Your task to perform on an android device: uninstall "Life360: Find Family & Friends" Image 0: 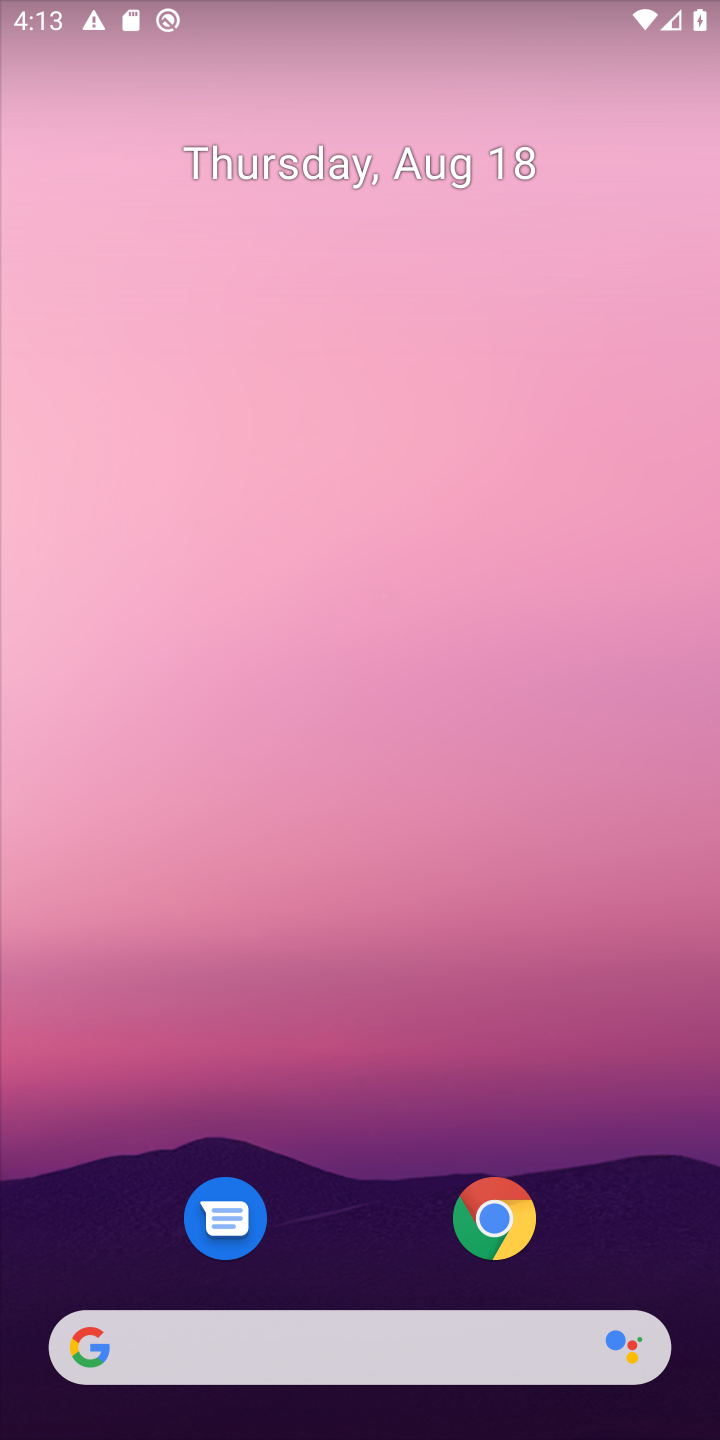
Step 0: drag from (435, 487) to (444, 366)
Your task to perform on an android device: uninstall "Life360: Find Family & Friends" Image 1: 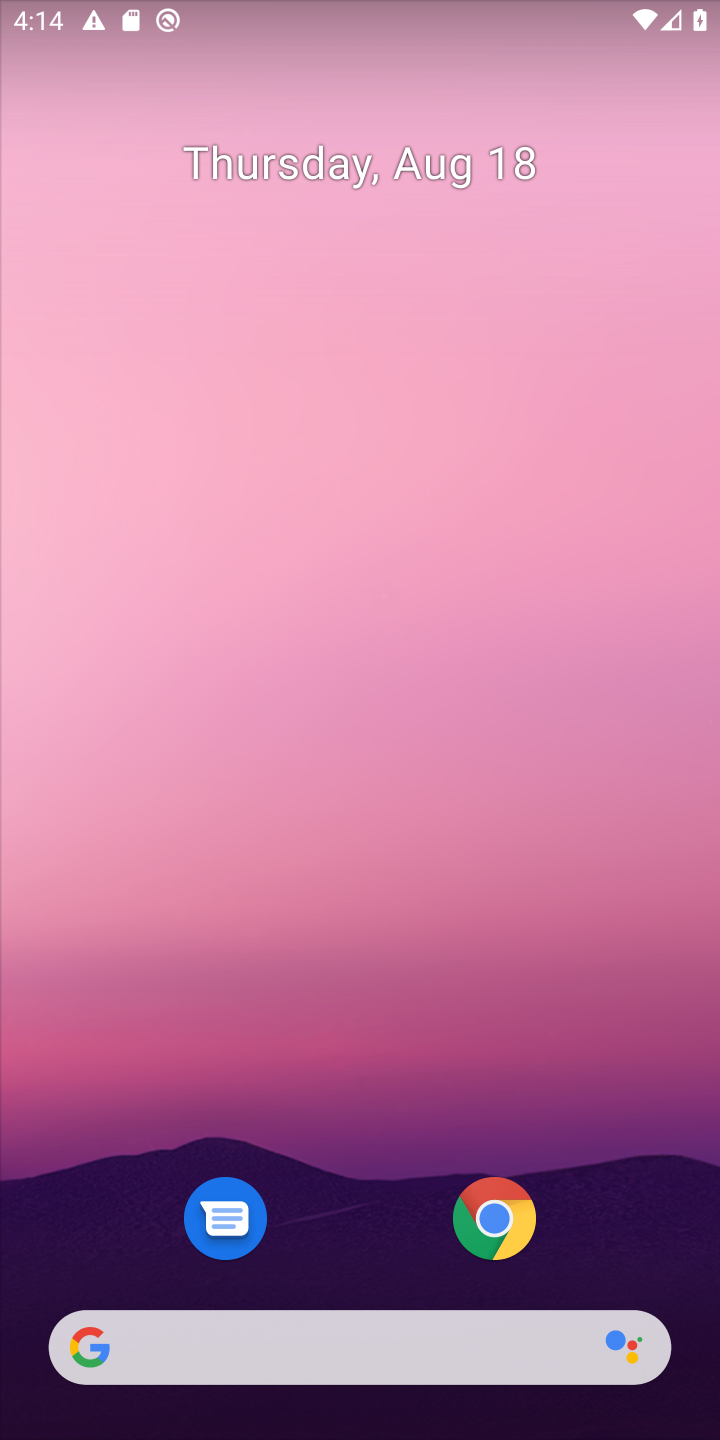
Step 1: drag from (343, 994) to (343, 284)
Your task to perform on an android device: uninstall "Life360: Find Family & Friends" Image 2: 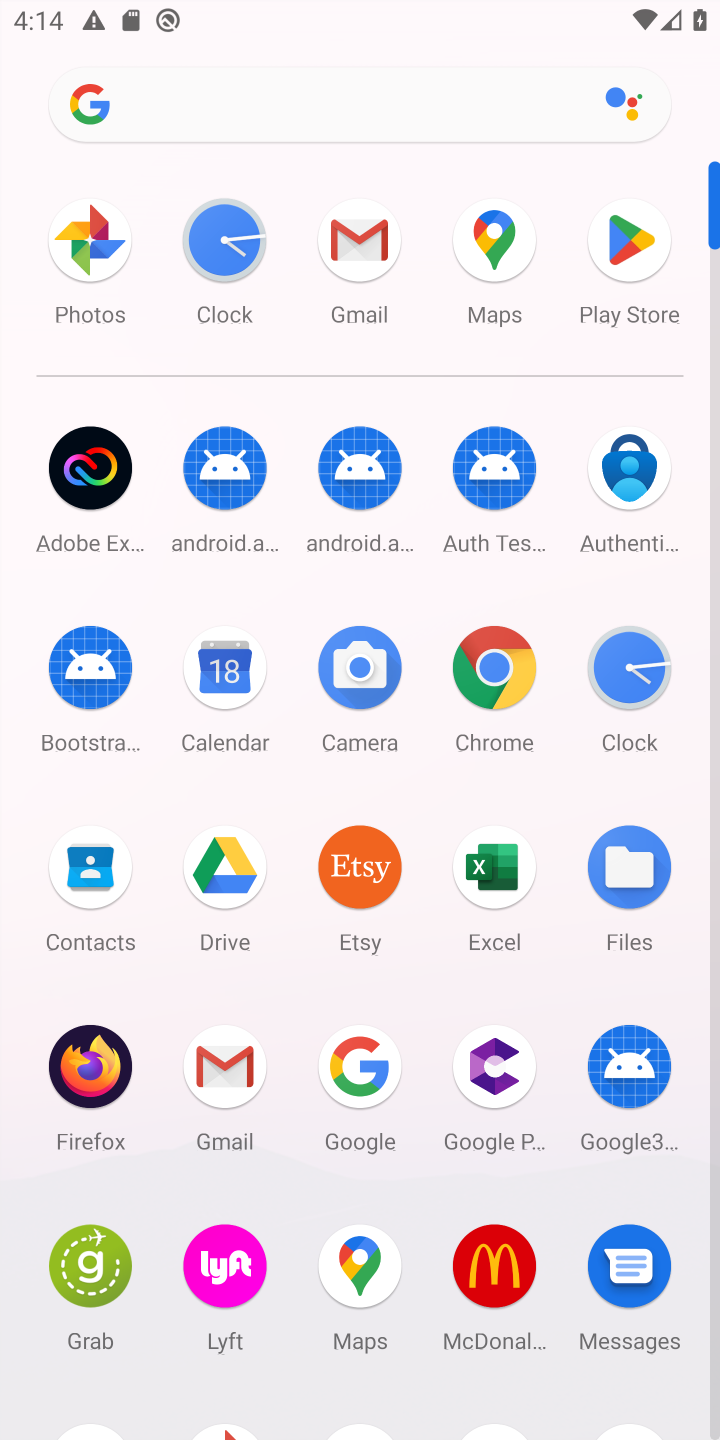
Step 2: click (619, 278)
Your task to perform on an android device: uninstall "Life360: Find Family & Friends" Image 3: 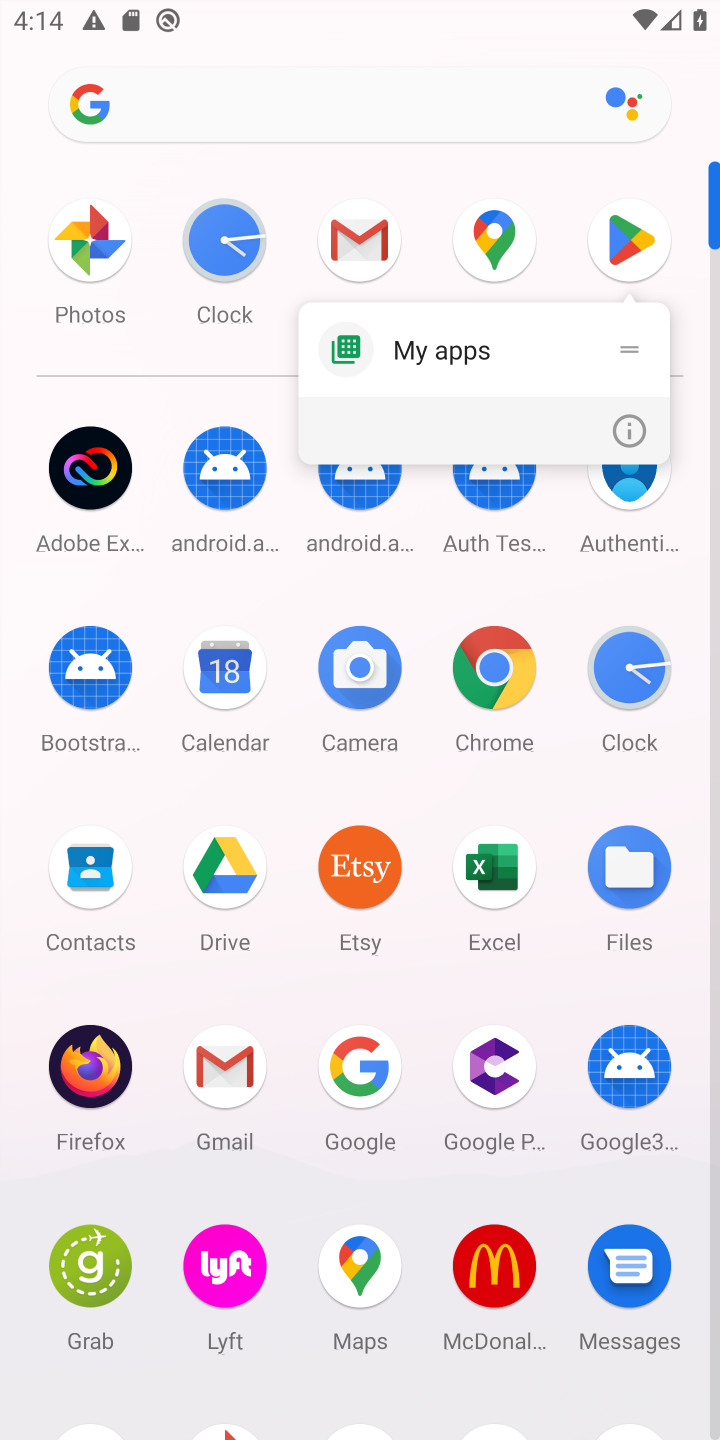
Step 3: click (619, 266)
Your task to perform on an android device: uninstall "Life360: Find Family & Friends" Image 4: 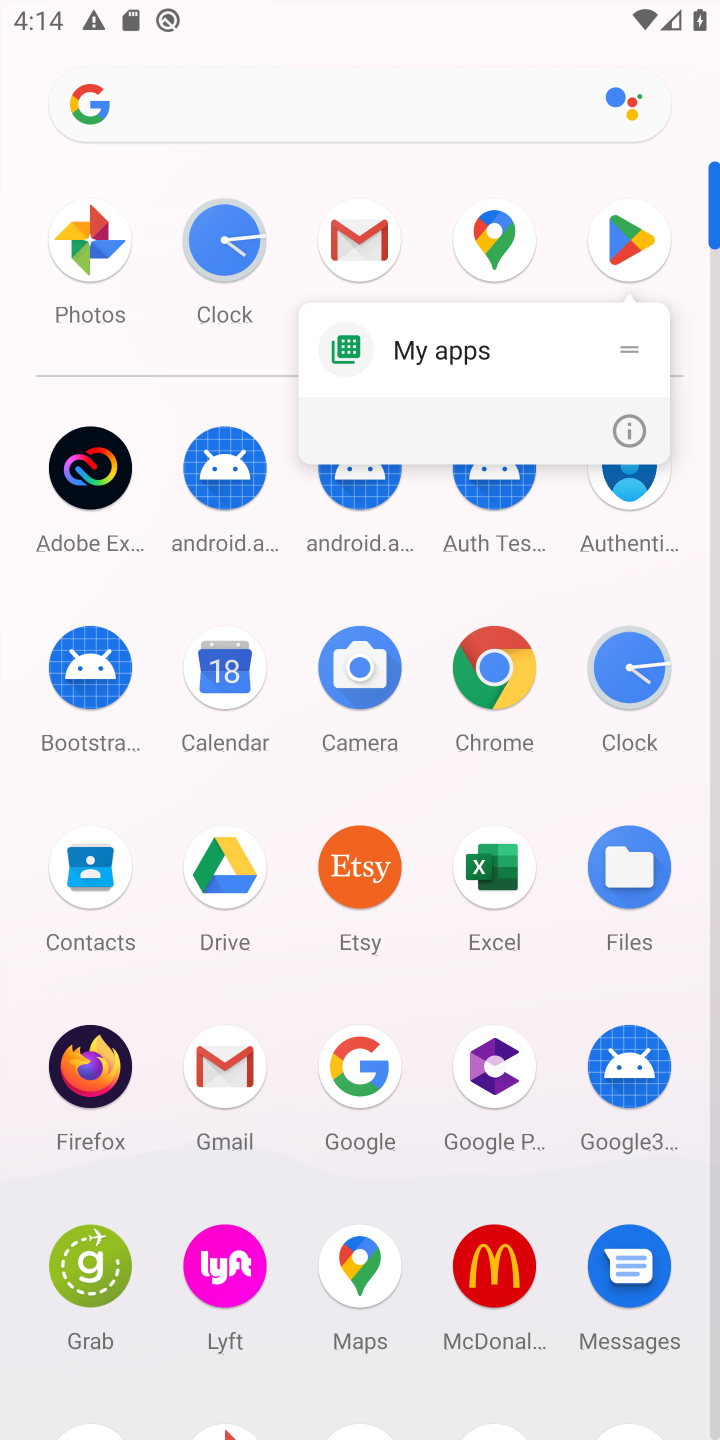
Step 4: click (616, 245)
Your task to perform on an android device: uninstall "Life360: Find Family & Friends" Image 5: 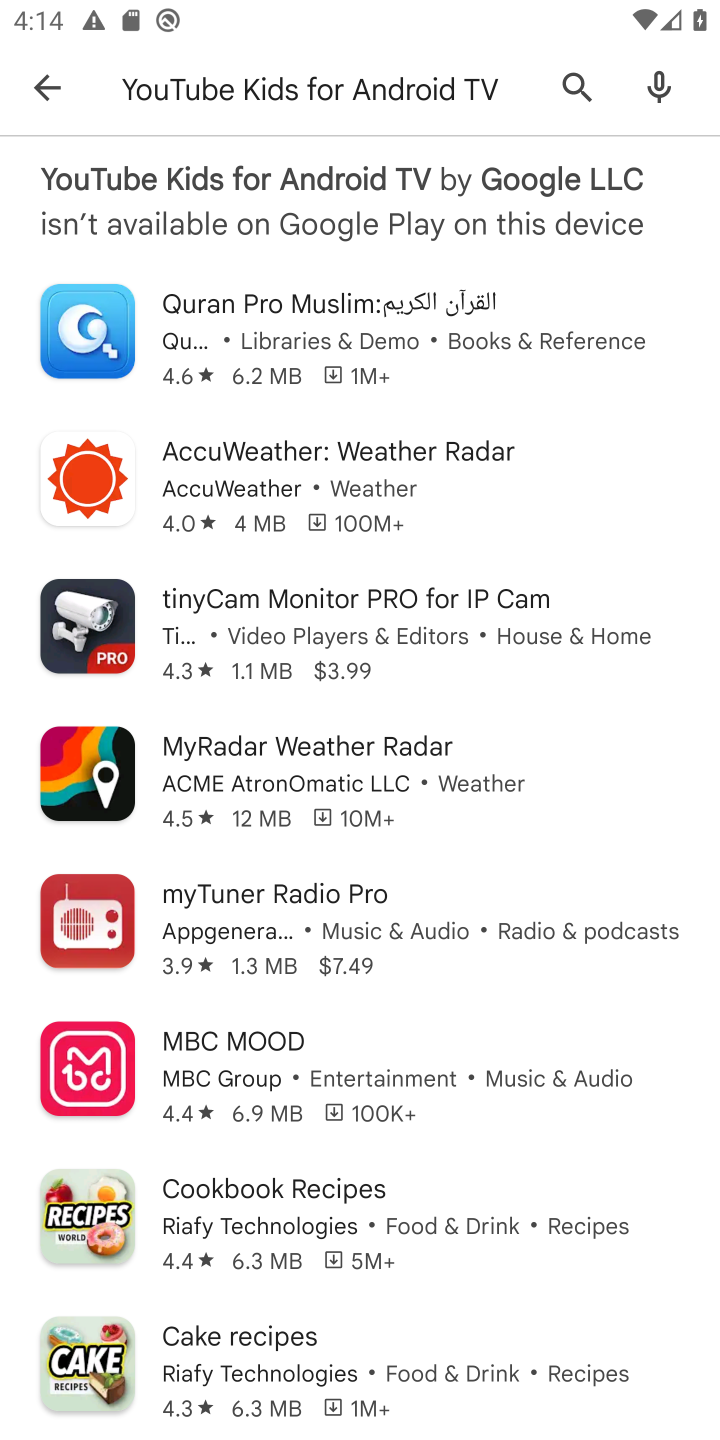
Step 5: click (581, 84)
Your task to perform on an android device: uninstall "Life360: Find Family & Friends" Image 6: 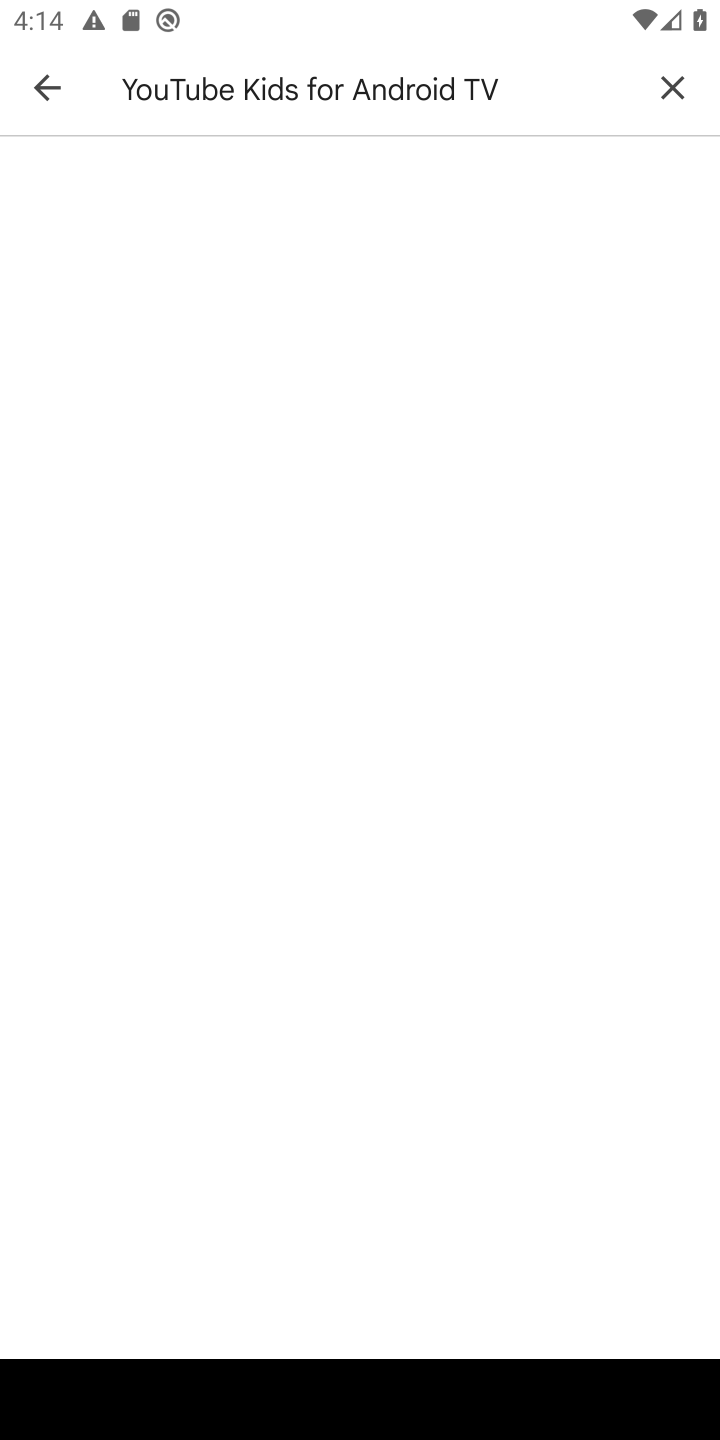
Step 6: click (680, 87)
Your task to perform on an android device: uninstall "Life360: Find Family & Friends" Image 7: 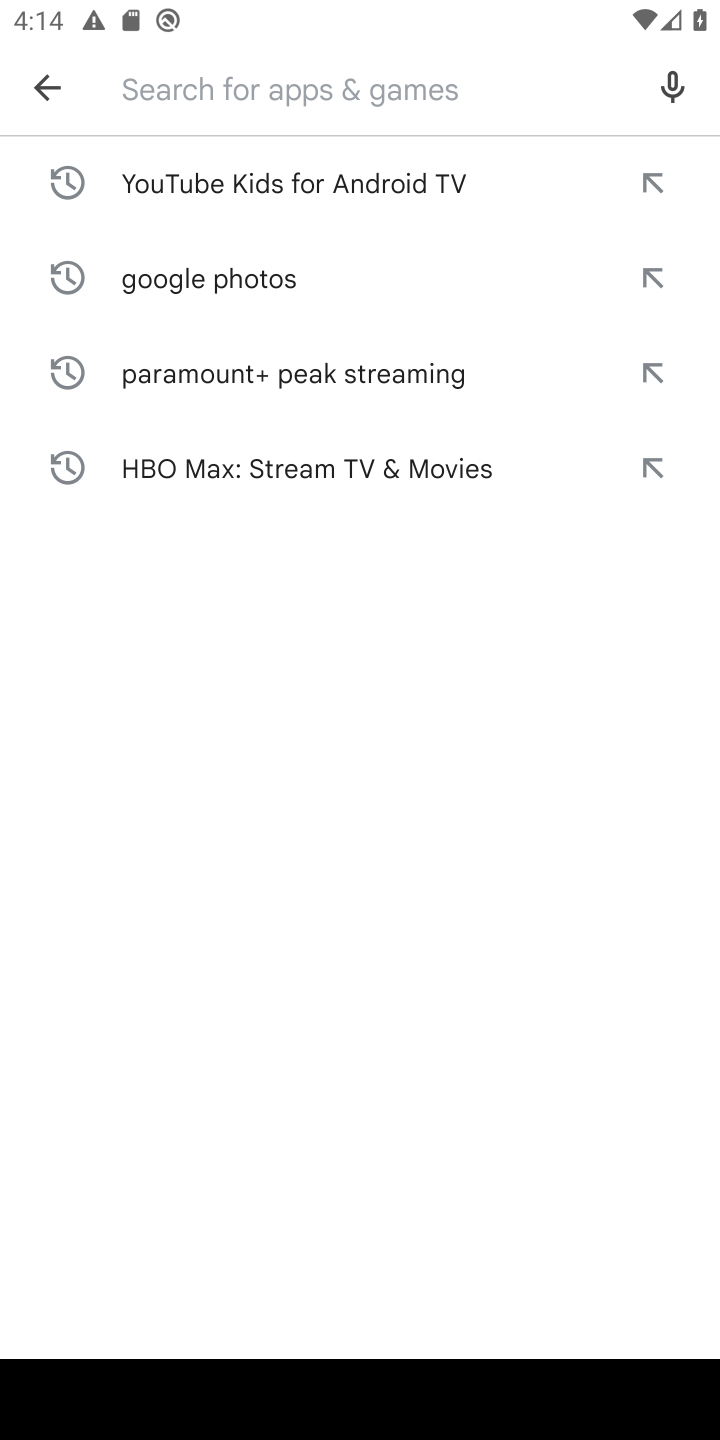
Step 7: type "Life360: Find Family & Friends"
Your task to perform on an android device: uninstall "Life360: Find Family & Friends" Image 8: 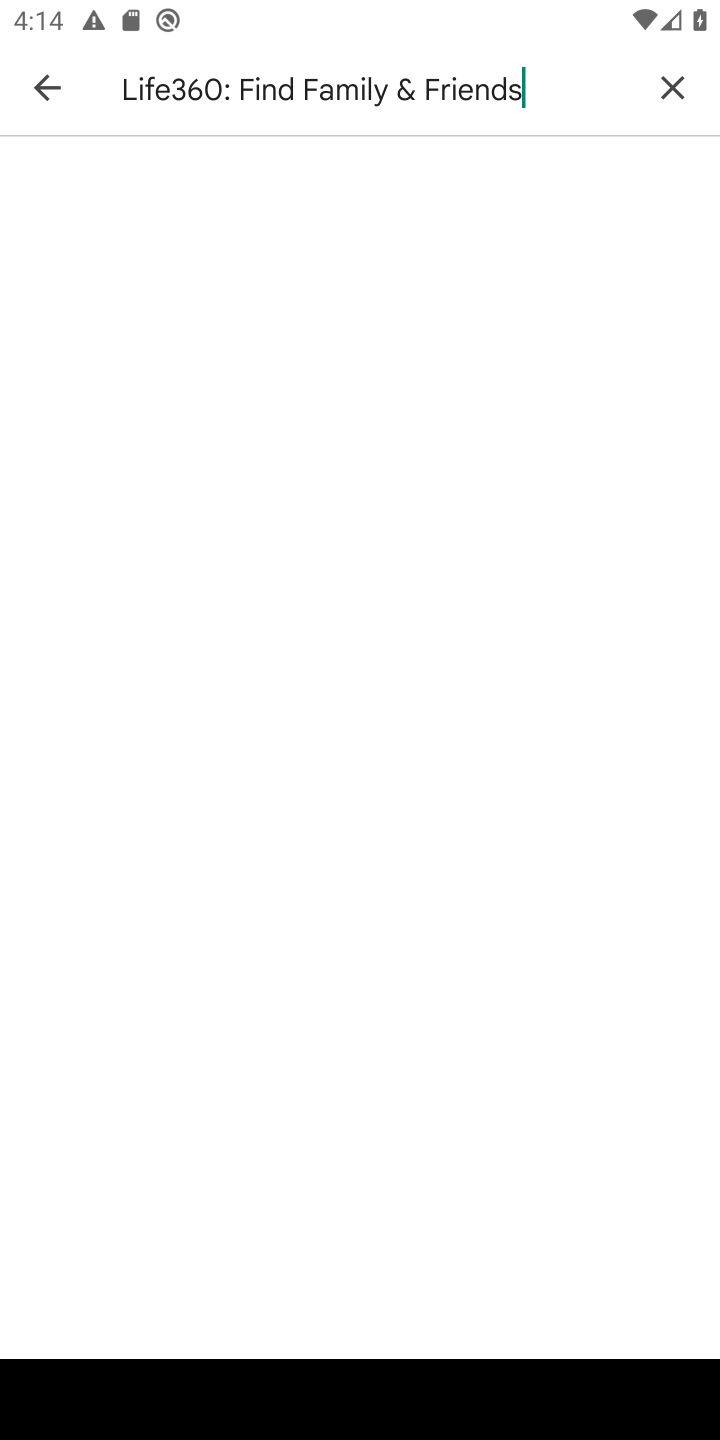
Step 8: task complete